Your task to perform on an android device: toggle sleep mode Image 0: 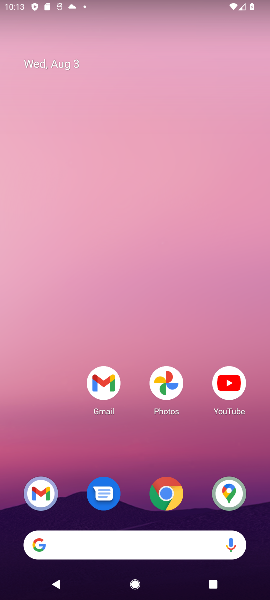
Step 0: press home button
Your task to perform on an android device: toggle sleep mode Image 1: 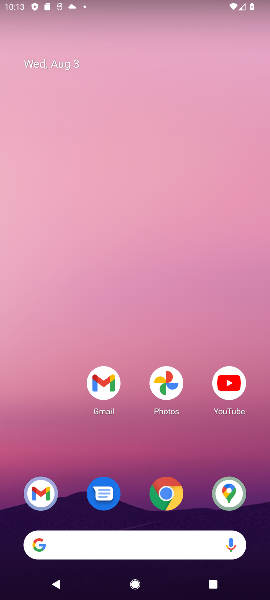
Step 1: drag from (135, 464) to (173, 132)
Your task to perform on an android device: toggle sleep mode Image 2: 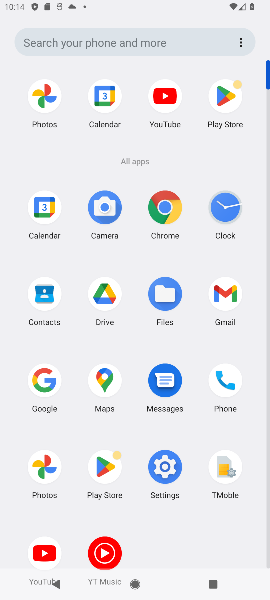
Step 2: click (166, 459)
Your task to perform on an android device: toggle sleep mode Image 3: 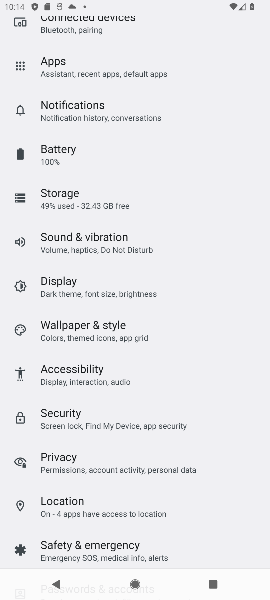
Step 3: click (71, 283)
Your task to perform on an android device: toggle sleep mode Image 4: 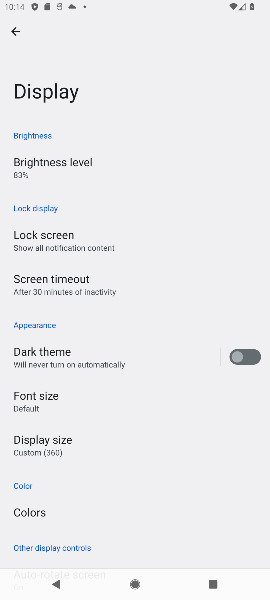
Step 4: task complete